Your task to perform on an android device: open a bookmark in the chrome app Image 0: 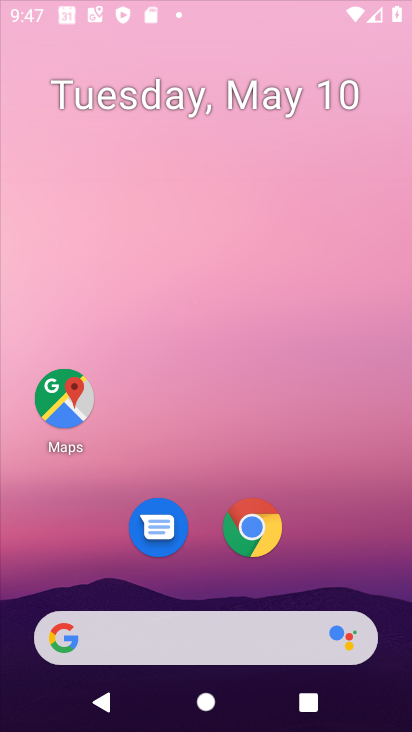
Step 0: drag from (347, 572) to (318, 326)
Your task to perform on an android device: open a bookmark in the chrome app Image 1: 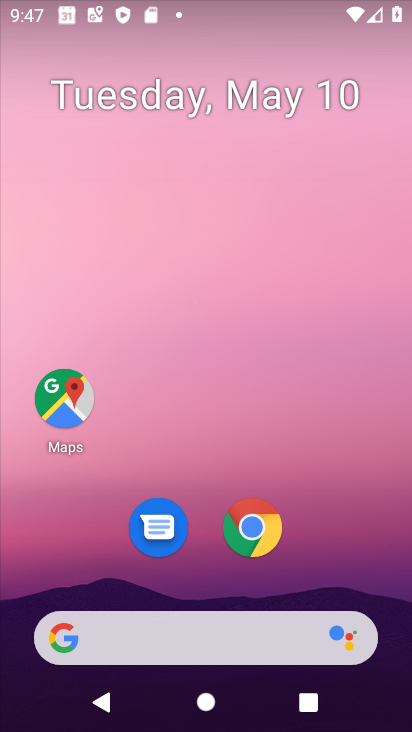
Step 1: click (276, 538)
Your task to perform on an android device: open a bookmark in the chrome app Image 2: 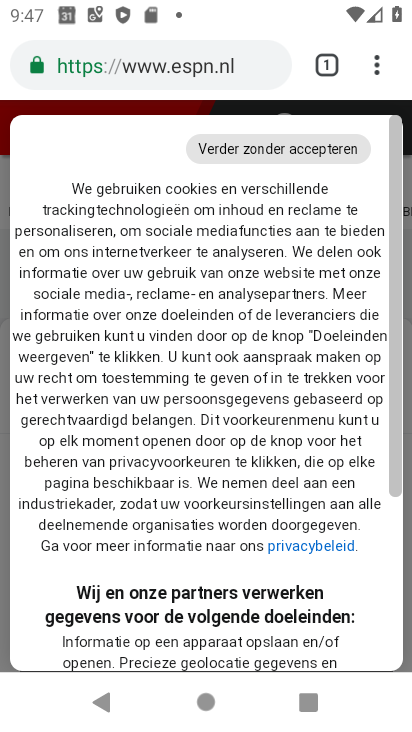
Step 2: click (380, 65)
Your task to perform on an android device: open a bookmark in the chrome app Image 3: 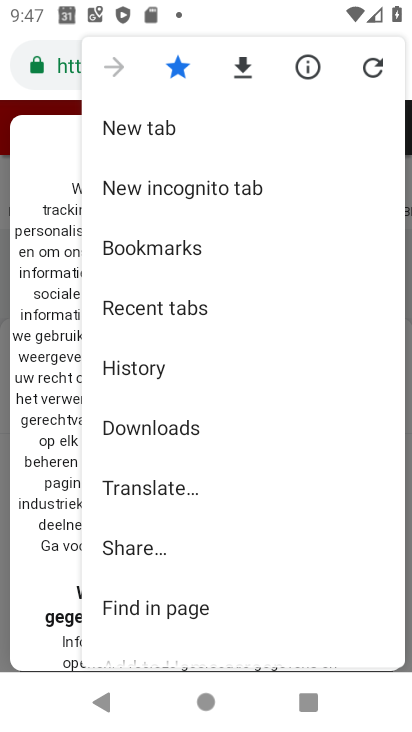
Step 3: drag from (261, 428) to (279, 374)
Your task to perform on an android device: open a bookmark in the chrome app Image 4: 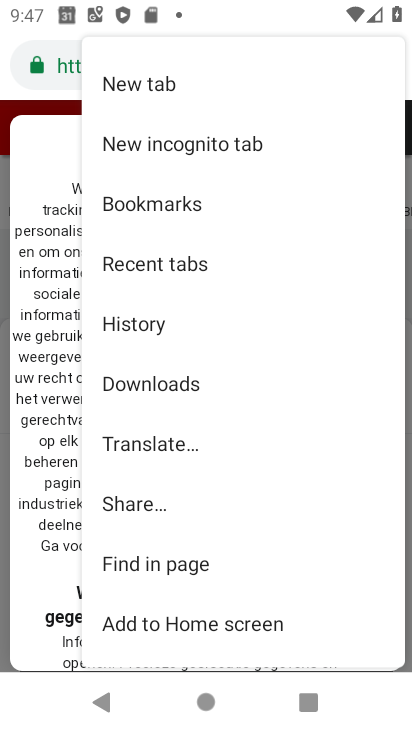
Step 4: press back button
Your task to perform on an android device: open a bookmark in the chrome app Image 5: 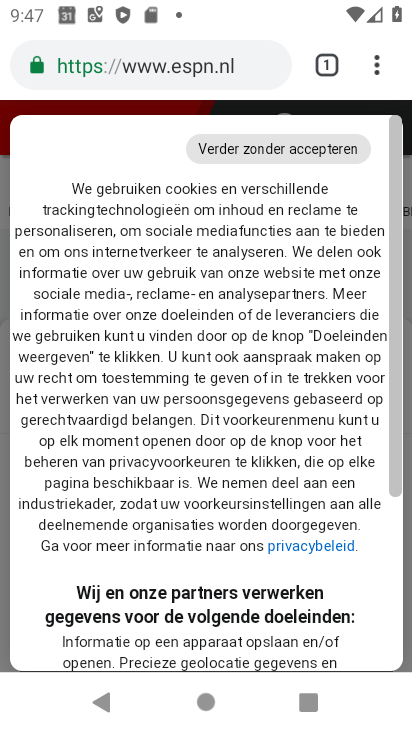
Step 5: press back button
Your task to perform on an android device: open a bookmark in the chrome app Image 6: 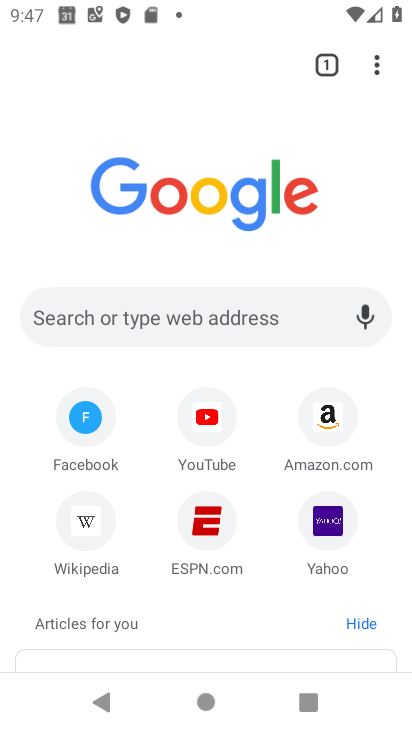
Step 6: click (371, 61)
Your task to perform on an android device: open a bookmark in the chrome app Image 7: 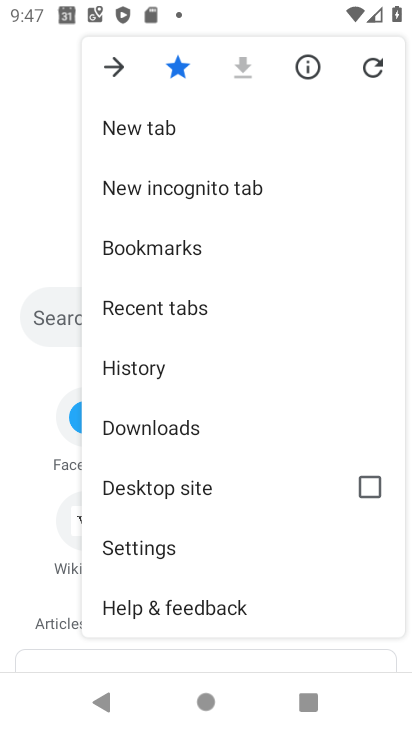
Step 7: click (258, 263)
Your task to perform on an android device: open a bookmark in the chrome app Image 8: 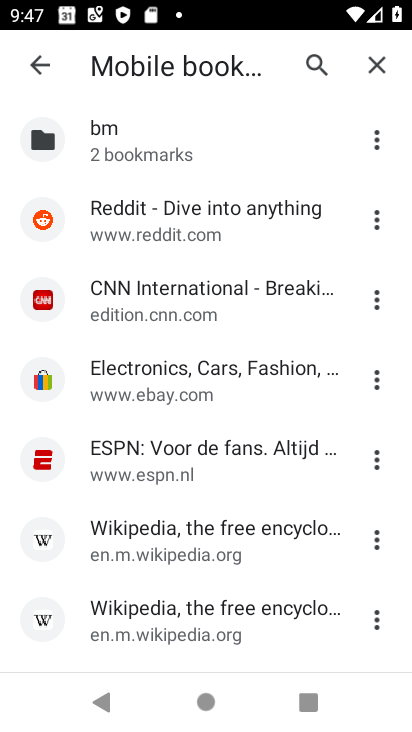
Step 8: click (264, 265)
Your task to perform on an android device: open a bookmark in the chrome app Image 9: 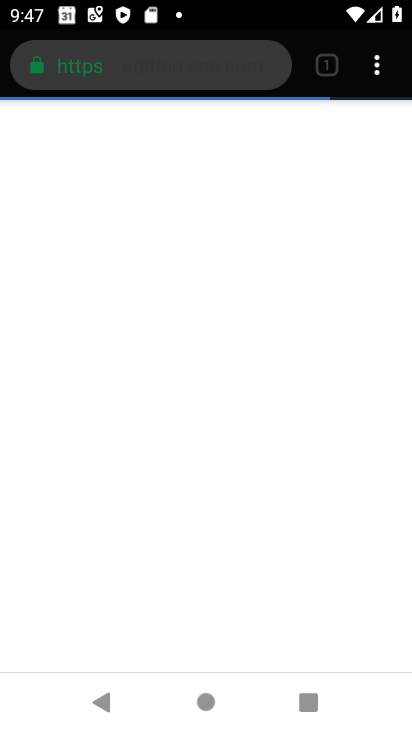
Step 9: click (240, 309)
Your task to perform on an android device: open a bookmark in the chrome app Image 10: 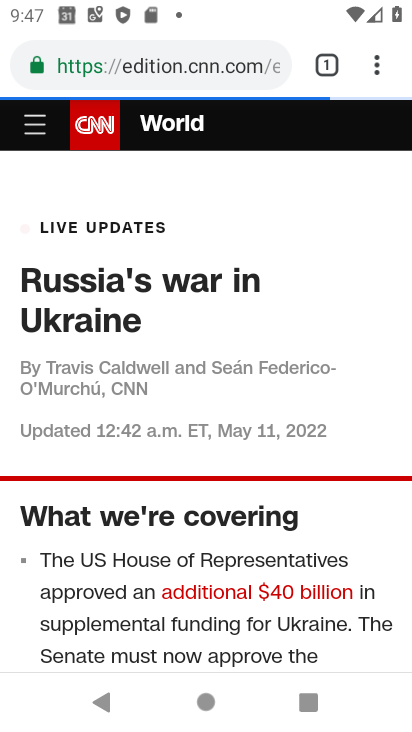
Step 10: task complete